Your task to perform on an android device: turn on the 12-hour format for clock Image 0: 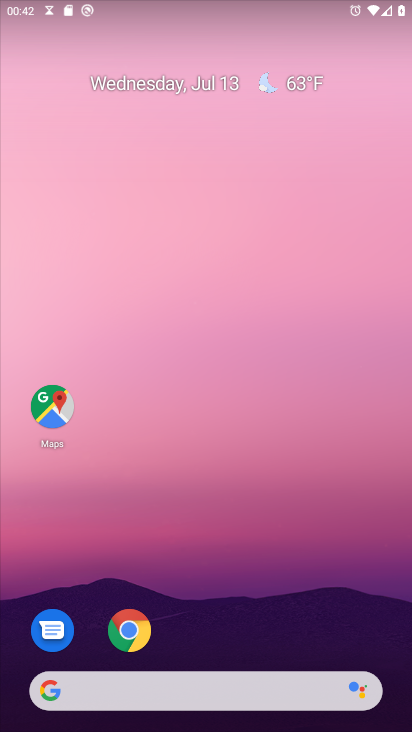
Step 0: drag from (211, 681) to (193, 459)
Your task to perform on an android device: turn on the 12-hour format for clock Image 1: 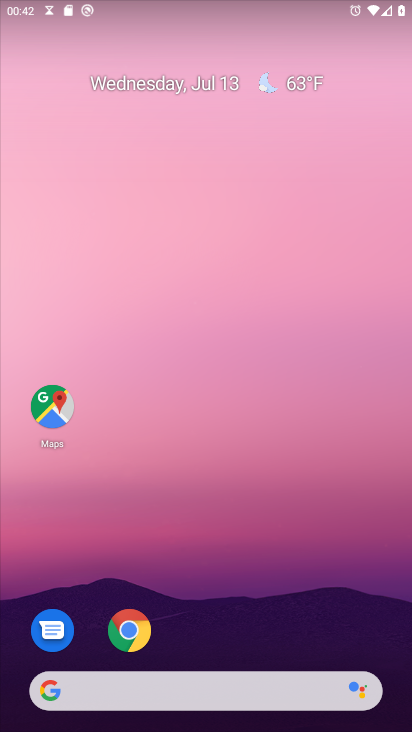
Step 1: drag from (176, 687) to (182, 225)
Your task to perform on an android device: turn on the 12-hour format for clock Image 2: 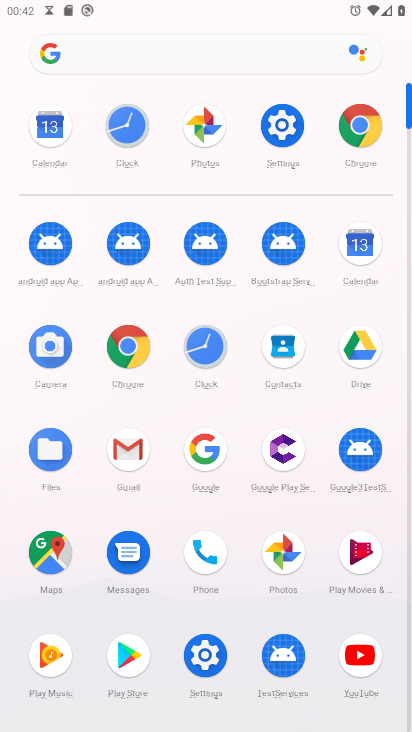
Step 2: click (201, 640)
Your task to perform on an android device: turn on the 12-hour format for clock Image 3: 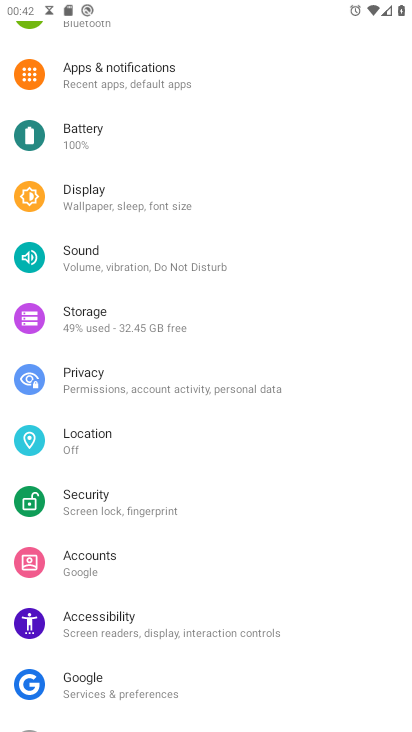
Step 3: drag from (140, 660) to (155, 239)
Your task to perform on an android device: turn on the 12-hour format for clock Image 4: 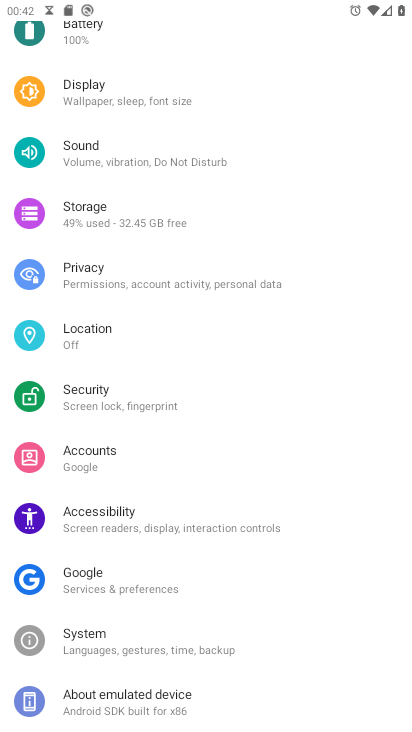
Step 4: click (132, 644)
Your task to perform on an android device: turn on the 12-hour format for clock Image 5: 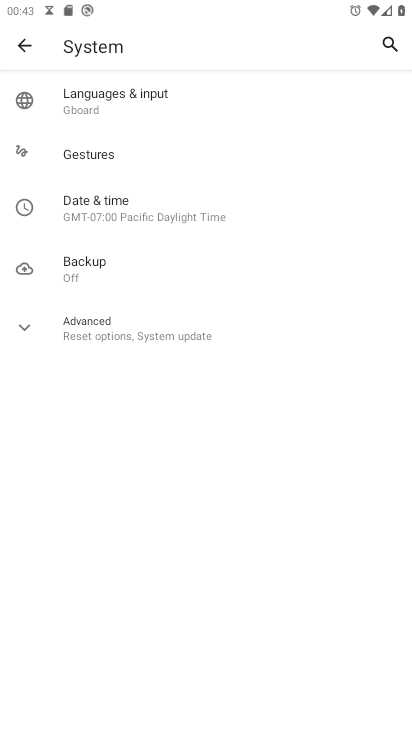
Step 5: click (118, 218)
Your task to perform on an android device: turn on the 12-hour format for clock Image 6: 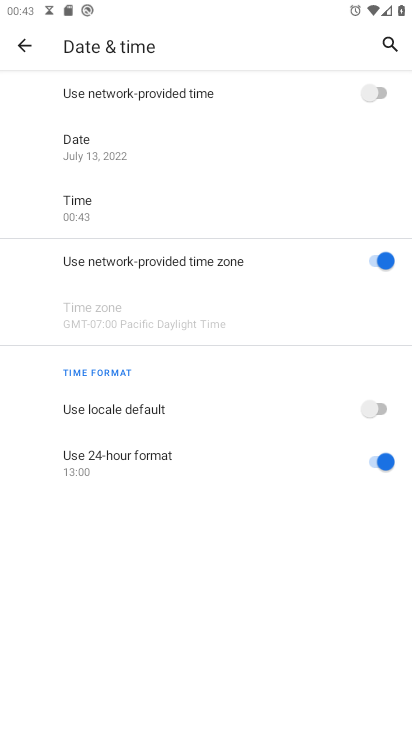
Step 6: click (371, 97)
Your task to perform on an android device: turn on the 12-hour format for clock Image 7: 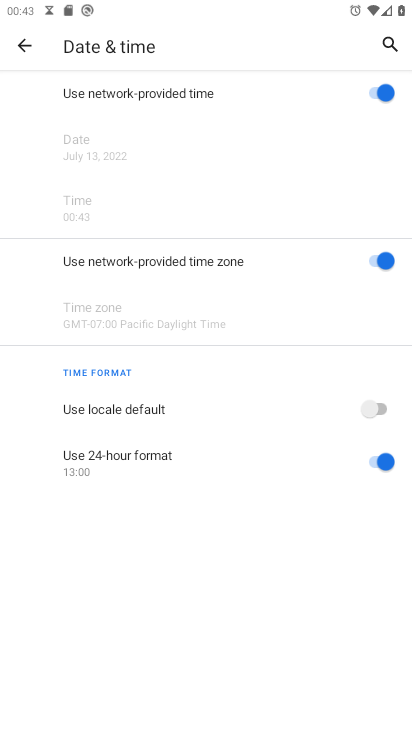
Step 7: click (381, 464)
Your task to perform on an android device: turn on the 12-hour format for clock Image 8: 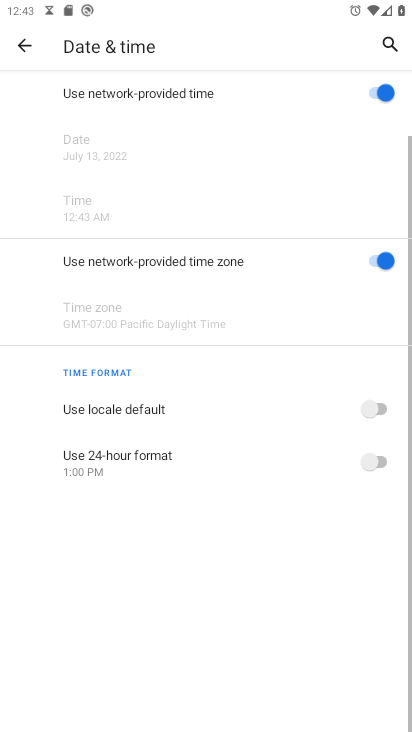
Step 8: click (379, 400)
Your task to perform on an android device: turn on the 12-hour format for clock Image 9: 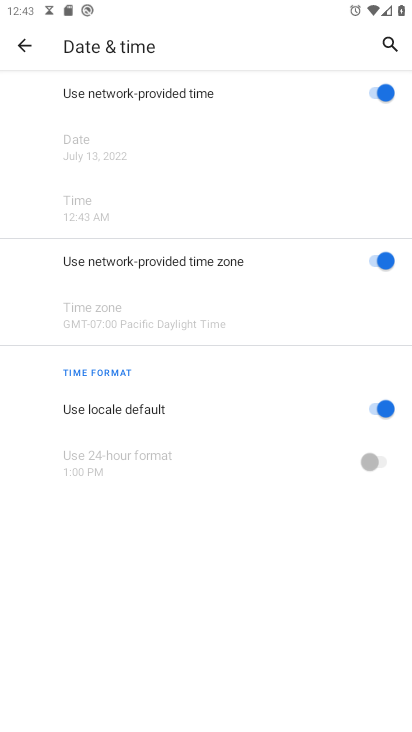
Step 9: task complete